Your task to perform on an android device: see sites visited before in the chrome app Image 0: 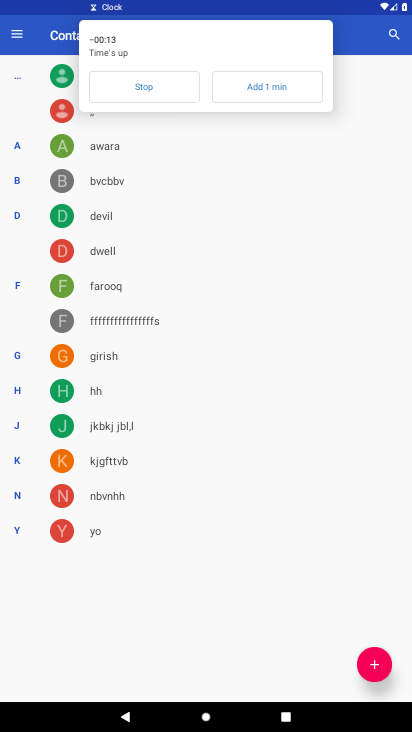
Step 0: press home button
Your task to perform on an android device: see sites visited before in the chrome app Image 1: 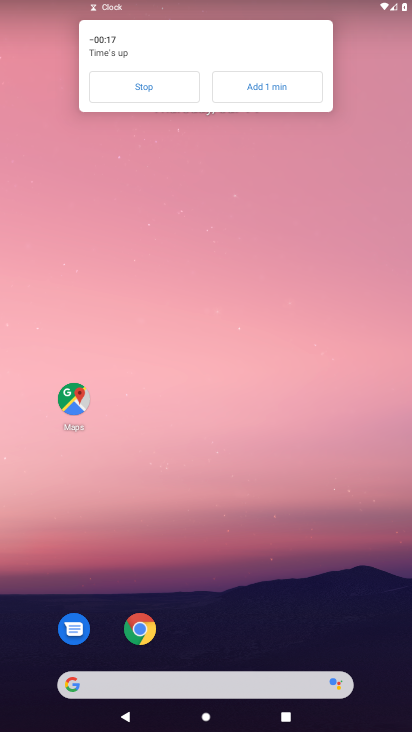
Step 1: click (144, 89)
Your task to perform on an android device: see sites visited before in the chrome app Image 2: 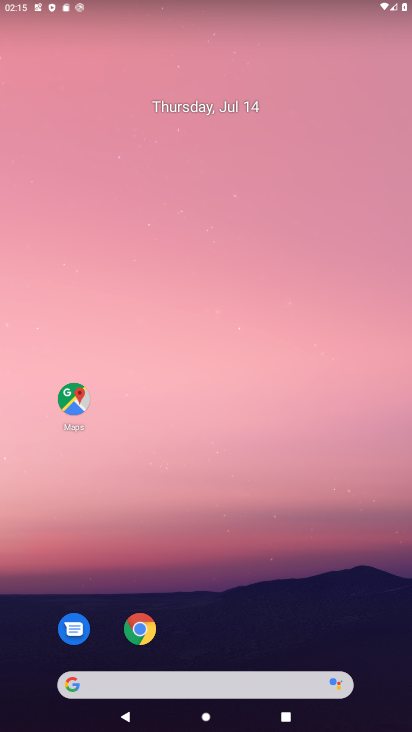
Step 2: drag from (226, 609) to (280, 2)
Your task to perform on an android device: see sites visited before in the chrome app Image 3: 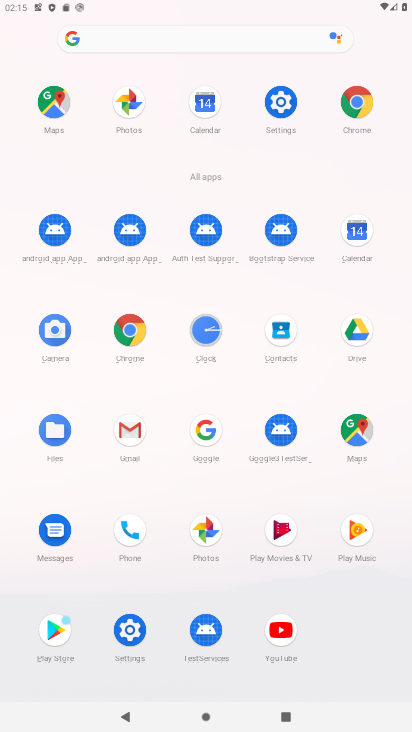
Step 3: click (137, 334)
Your task to perform on an android device: see sites visited before in the chrome app Image 4: 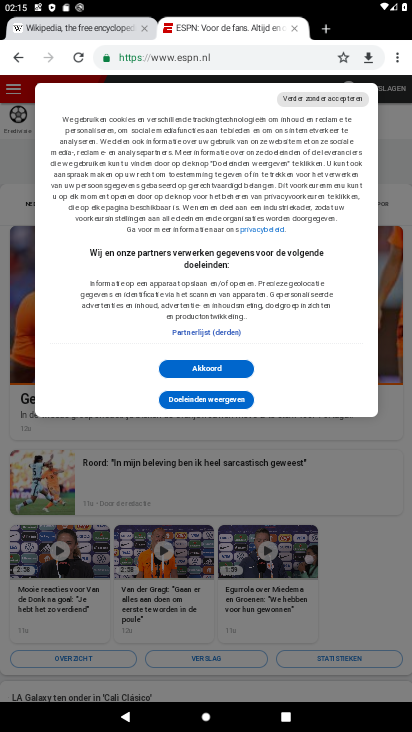
Step 4: click (399, 58)
Your task to perform on an android device: see sites visited before in the chrome app Image 5: 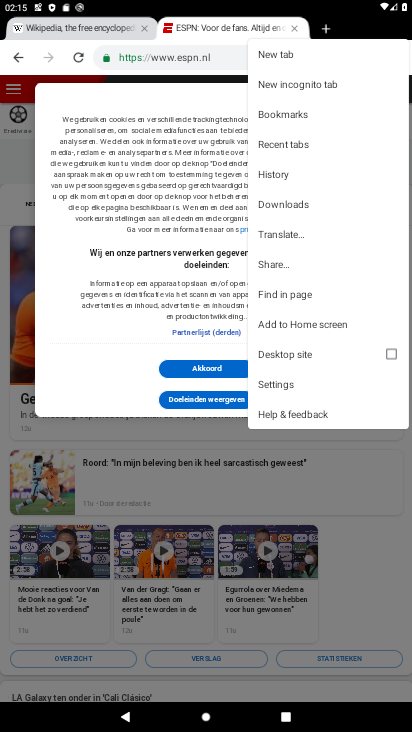
Step 5: click (286, 177)
Your task to perform on an android device: see sites visited before in the chrome app Image 6: 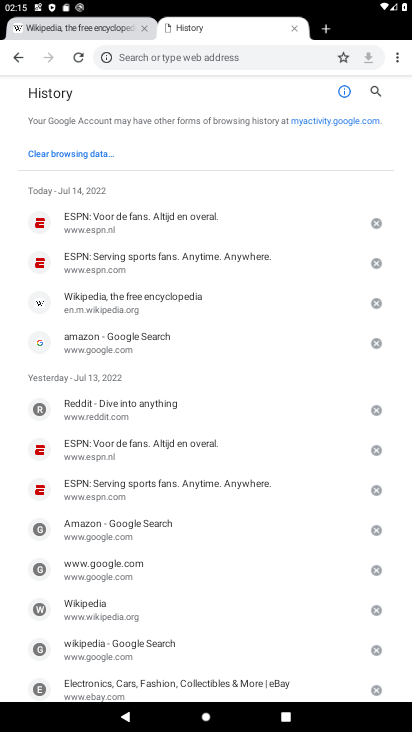
Step 6: task complete